Your task to perform on an android device: toggle location history Image 0: 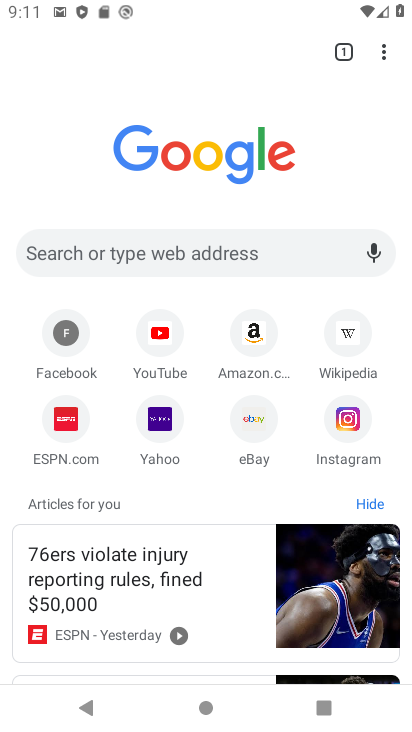
Step 0: press home button
Your task to perform on an android device: toggle location history Image 1: 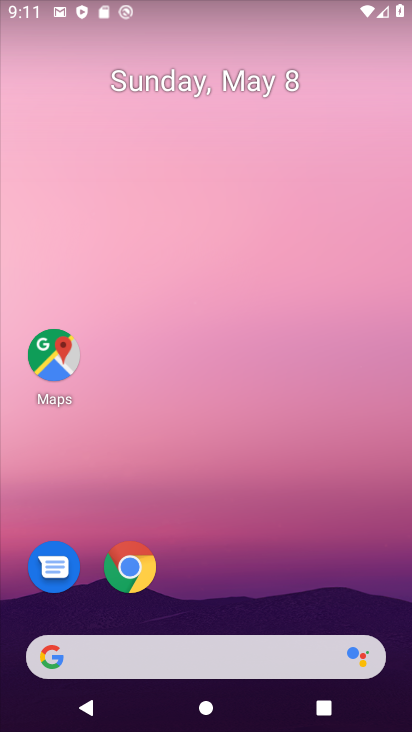
Step 1: drag from (228, 726) to (232, 313)
Your task to perform on an android device: toggle location history Image 2: 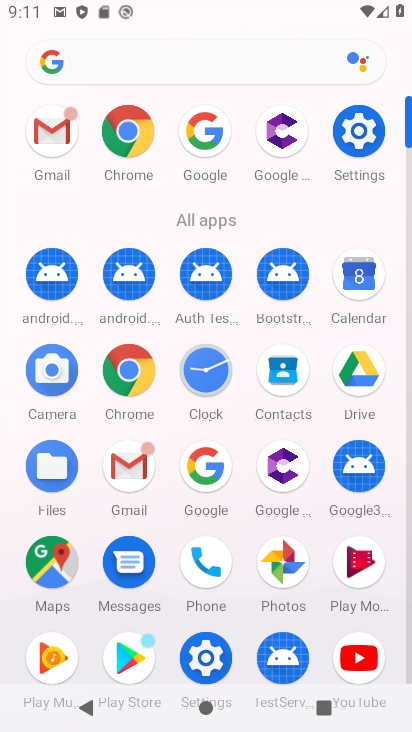
Step 2: click (361, 136)
Your task to perform on an android device: toggle location history Image 3: 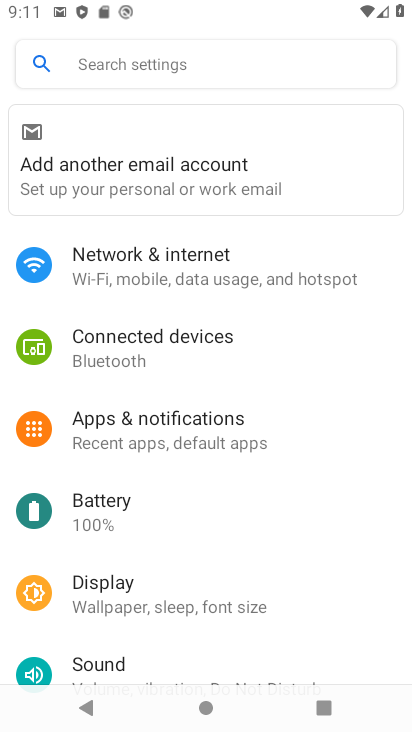
Step 3: drag from (148, 647) to (150, 234)
Your task to perform on an android device: toggle location history Image 4: 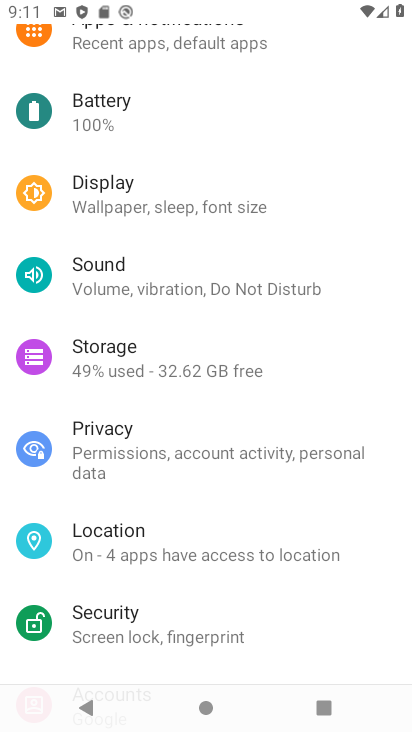
Step 4: click (117, 532)
Your task to perform on an android device: toggle location history Image 5: 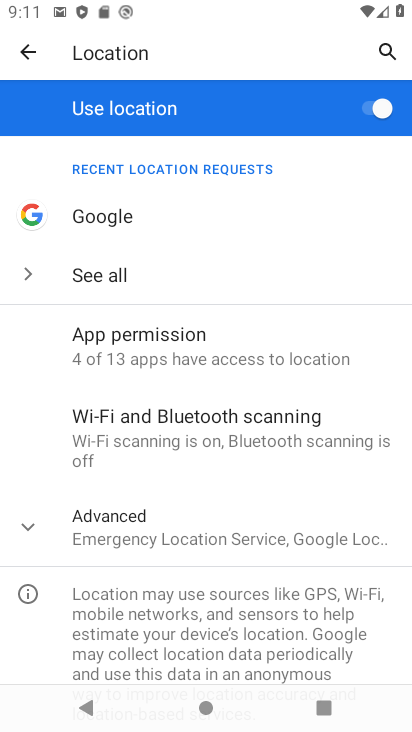
Step 5: click (137, 524)
Your task to perform on an android device: toggle location history Image 6: 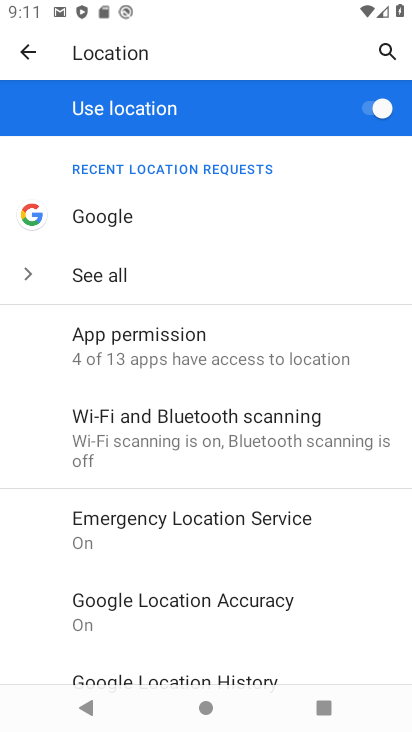
Step 6: drag from (206, 656) to (210, 423)
Your task to perform on an android device: toggle location history Image 7: 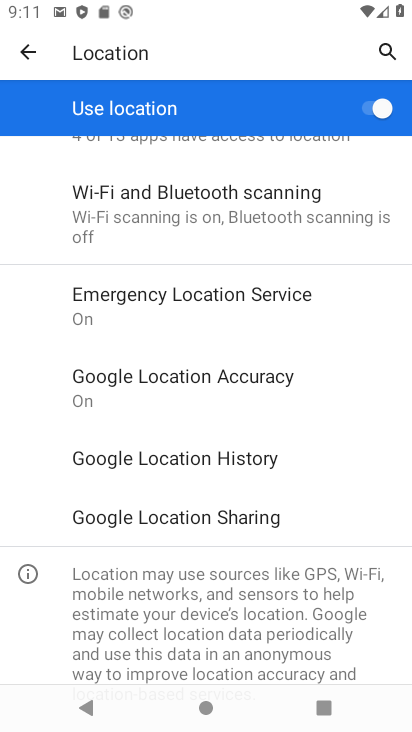
Step 7: click (204, 452)
Your task to perform on an android device: toggle location history Image 8: 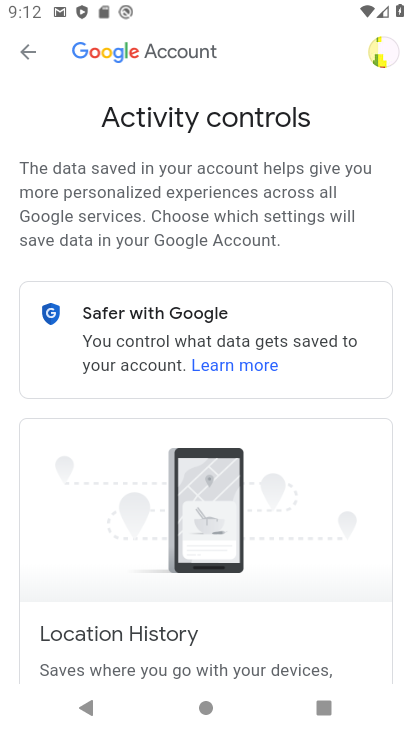
Step 8: drag from (213, 626) to (183, 313)
Your task to perform on an android device: toggle location history Image 9: 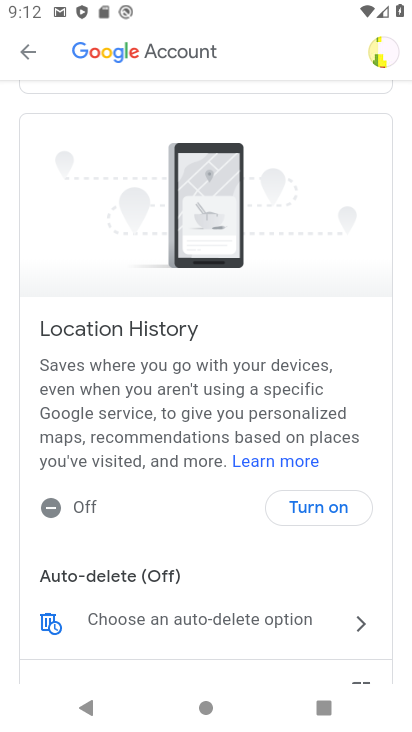
Step 9: drag from (184, 637) to (172, 448)
Your task to perform on an android device: toggle location history Image 10: 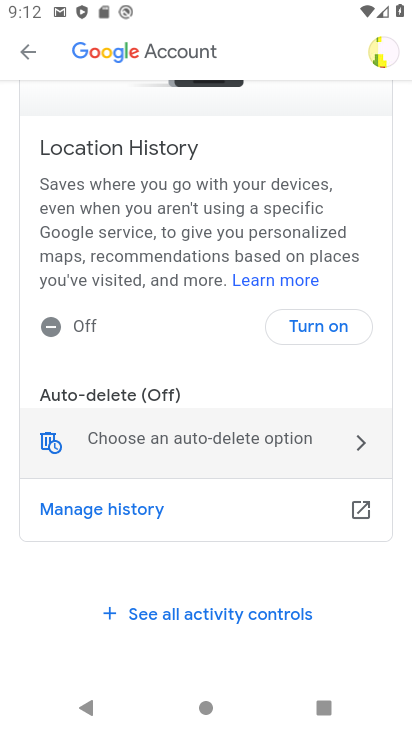
Step 10: click (316, 321)
Your task to perform on an android device: toggle location history Image 11: 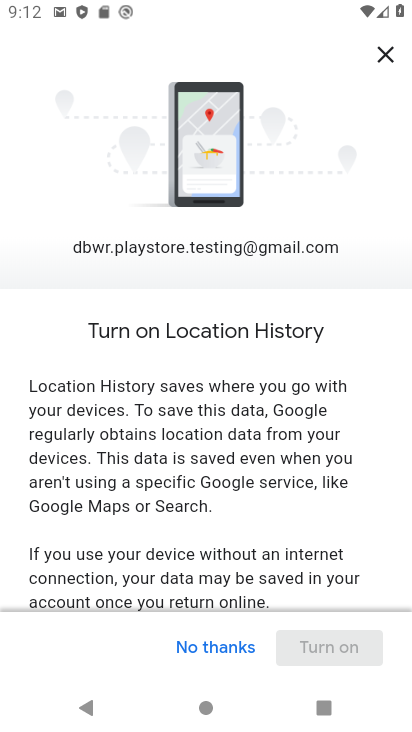
Step 11: drag from (283, 561) to (248, 262)
Your task to perform on an android device: toggle location history Image 12: 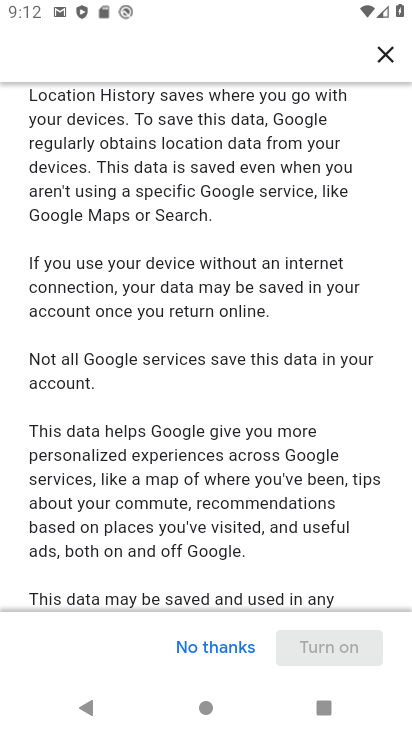
Step 12: drag from (275, 577) to (261, 350)
Your task to perform on an android device: toggle location history Image 13: 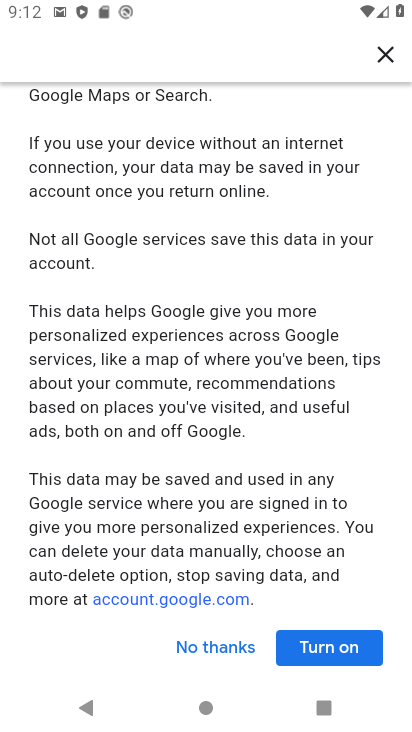
Step 13: click (331, 645)
Your task to perform on an android device: toggle location history Image 14: 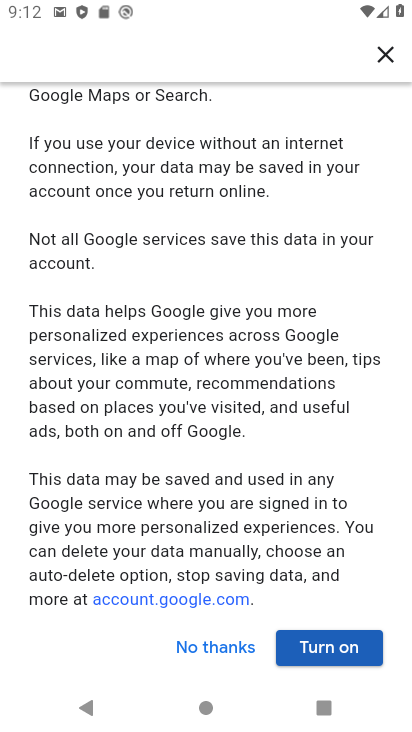
Step 14: click (328, 647)
Your task to perform on an android device: toggle location history Image 15: 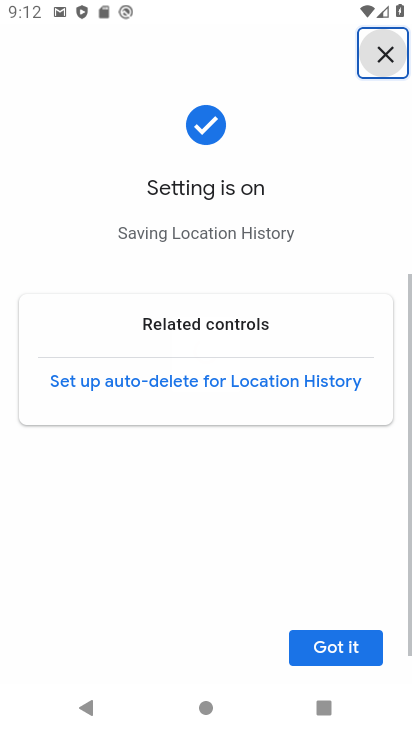
Step 15: task complete